Your task to perform on an android device: change the clock display to digital Image 0: 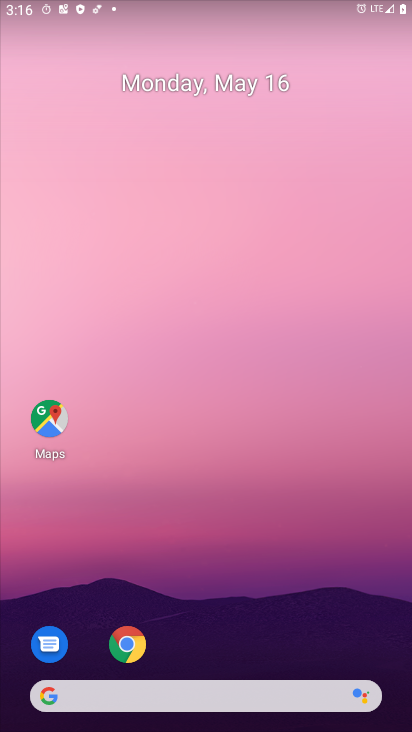
Step 0: drag from (311, 579) to (255, 0)
Your task to perform on an android device: change the clock display to digital Image 1: 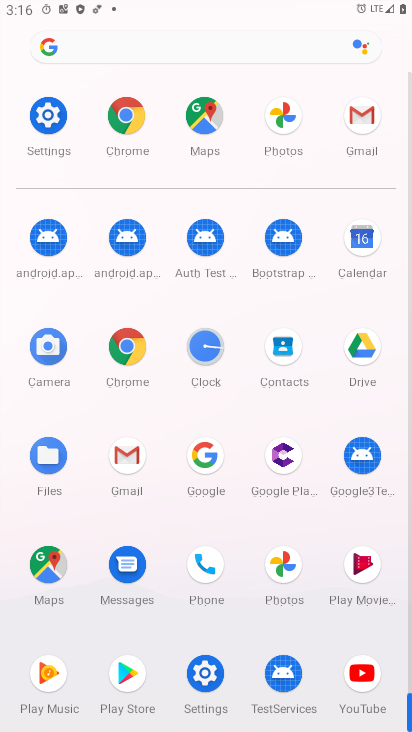
Step 1: click (211, 343)
Your task to perform on an android device: change the clock display to digital Image 2: 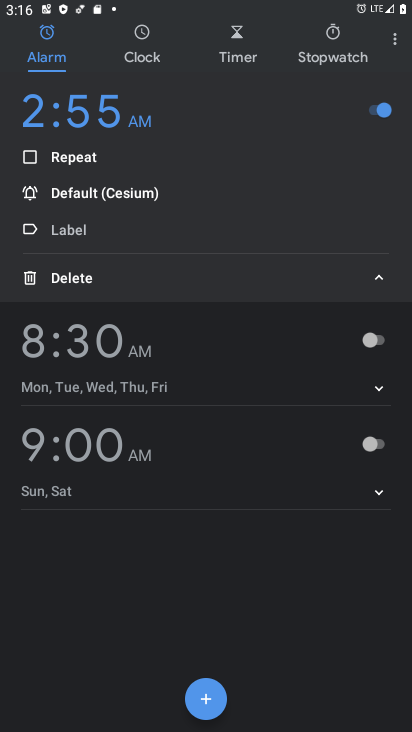
Step 2: click (401, 52)
Your task to perform on an android device: change the clock display to digital Image 3: 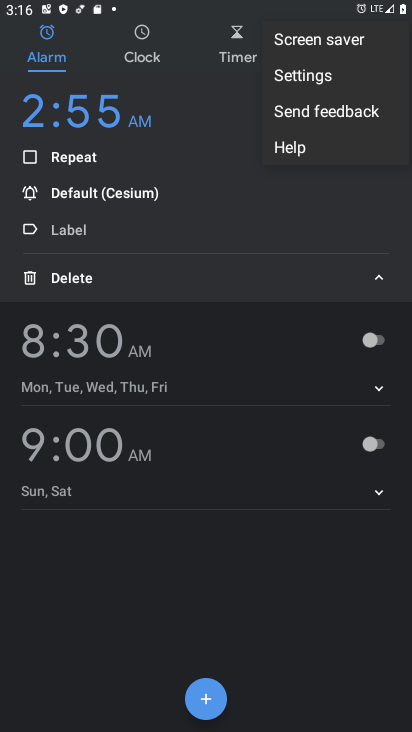
Step 3: click (344, 77)
Your task to perform on an android device: change the clock display to digital Image 4: 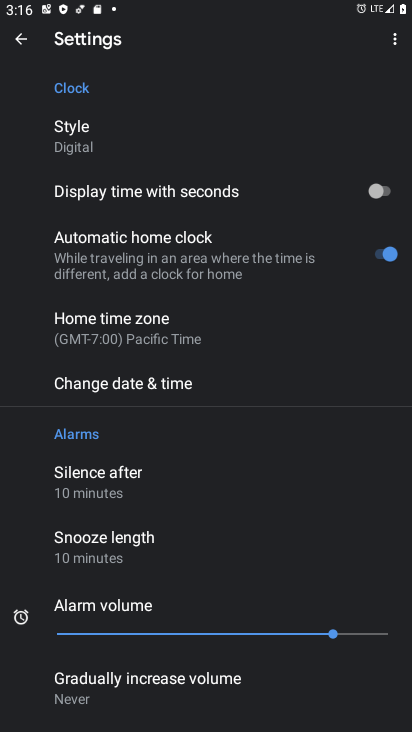
Step 4: click (148, 143)
Your task to perform on an android device: change the clock display to digital Image 5: 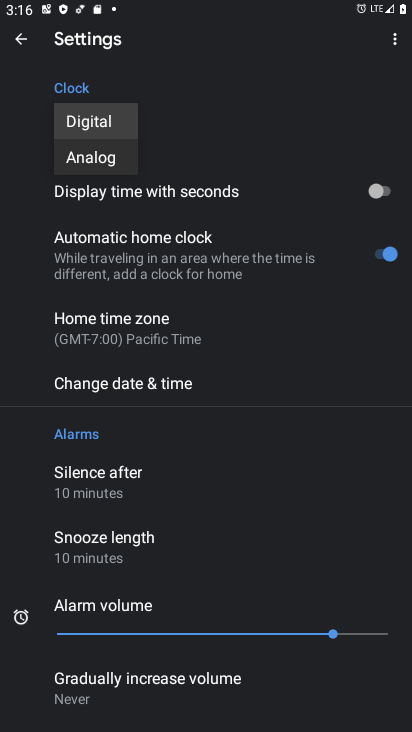
Step 5: click (110, 121)
Your task to perform on an android device: change the clock display to digital Image 6: 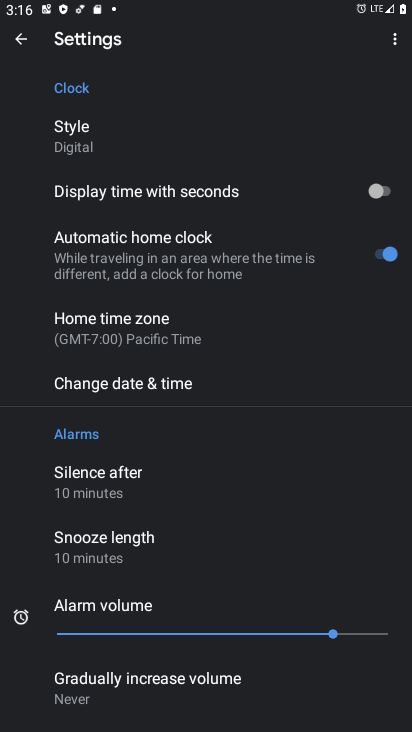
Step 6: task complete